Your task to perform on an android device: turn off location Image 0: 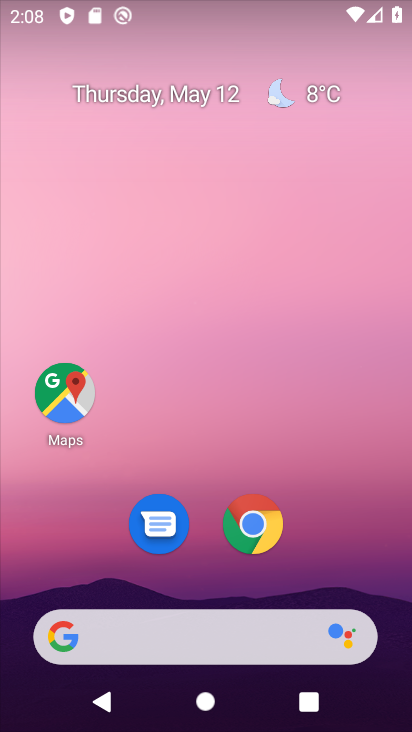
Step 0: drag from (203, 446) to (244, 10)
Your task to perform on an android device: turn off location Image 1: 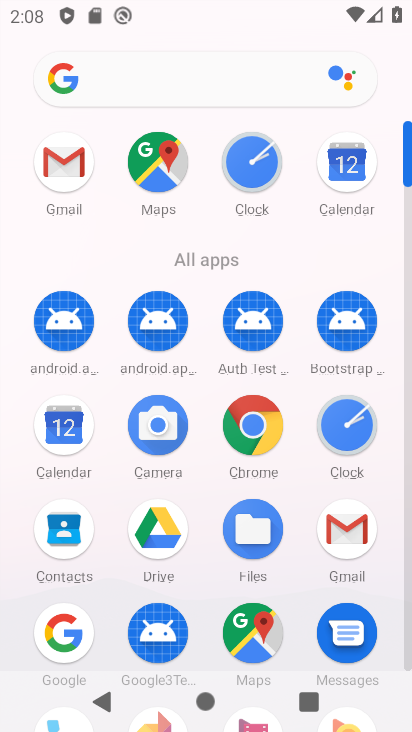
Step 1: drag from (200, 471) to (211, 159)
Your task to perform on an android device: turn off location Image 2: 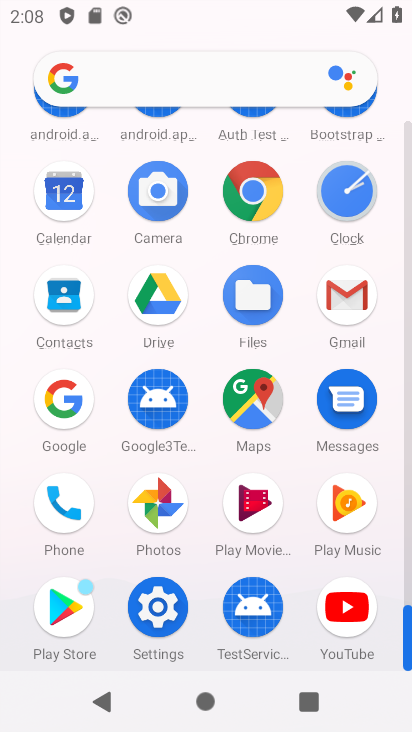
Step 2: click (167, 596)
Your task to perform on an android device: turn off location Image 3: 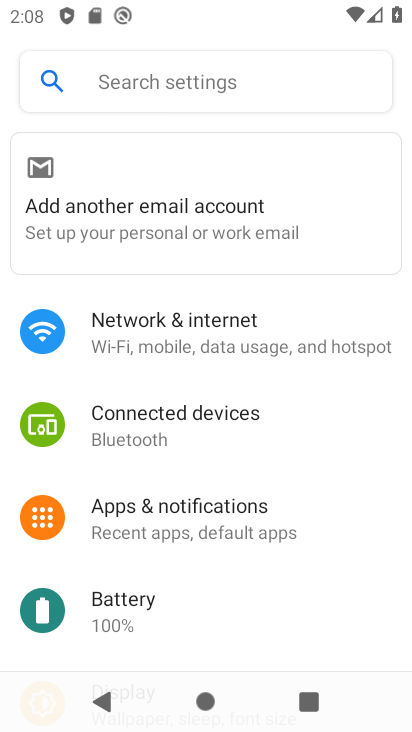
Step 3: drag from (213, 551) to (243, 92)
Your task to perform on an android device: turn off location Image 4: 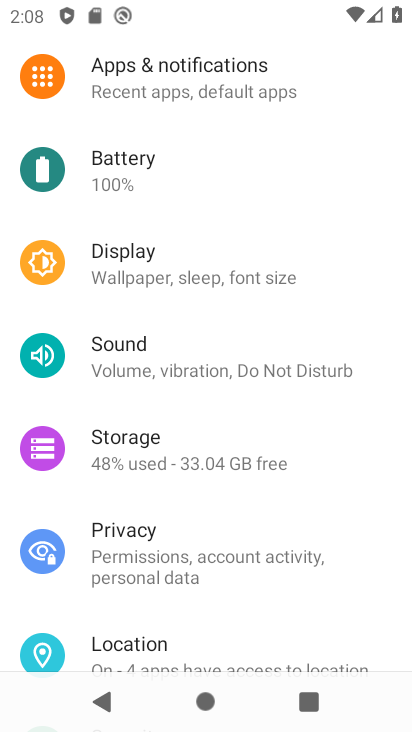
Step 4: drag from (195, 484) to (214, 204)
Your task to perform on an android device: turn off location Image 5: 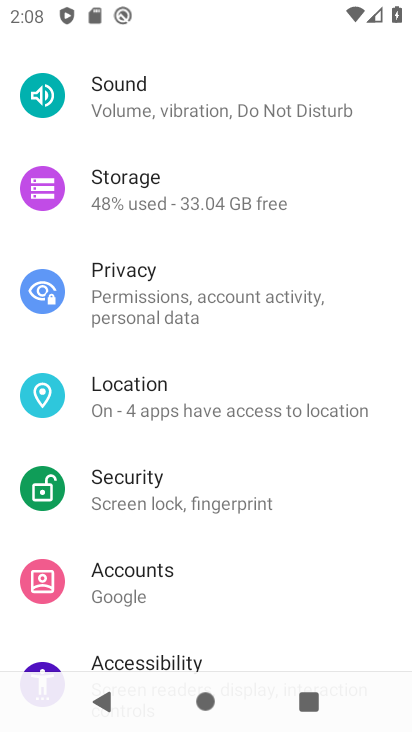
Step 5: click (187, 402)
Your task to perform on an android device: turn off location Image 6: 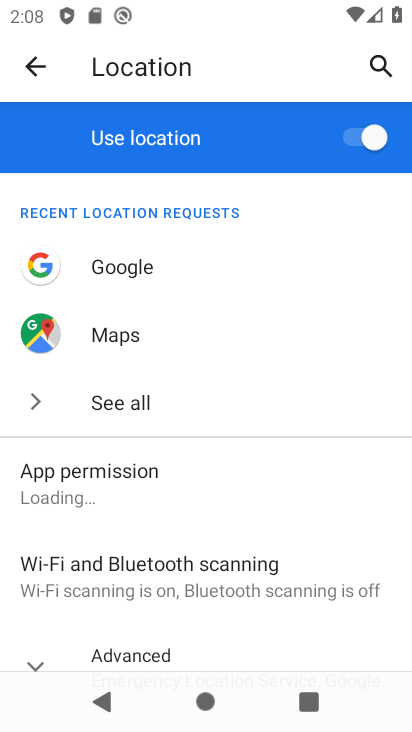
Step 6: click (358, 133)
Your task to perform on an android device: turn off location Image 7: 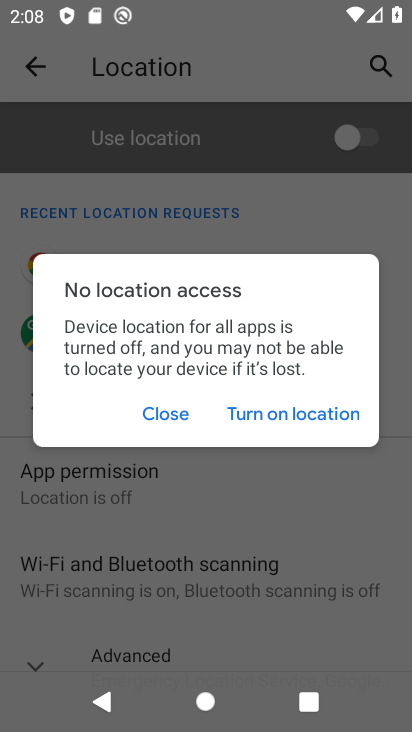
Step 7: task complete